Your task to perform on an android device: Go to display settings Image 0: 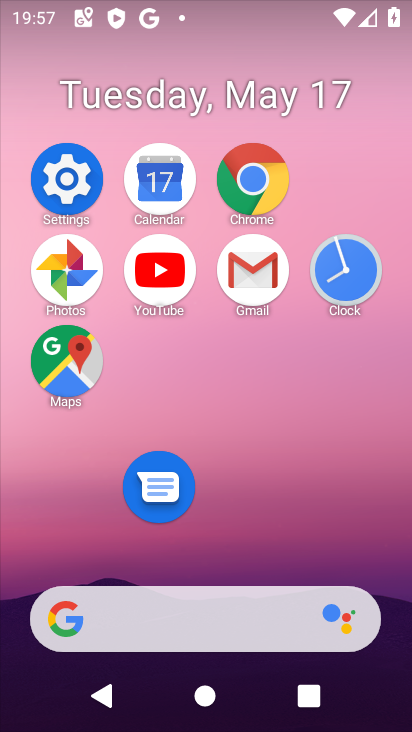
Step 0: click (69, 175)
Your task to perform on an android device: Go to display settings Image 1: 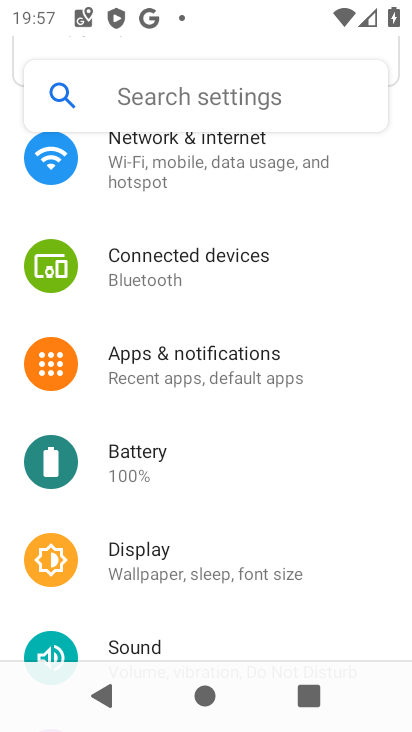
Step 1: drag from (319, 251) to (313, 154)
Your task to perform on an android device: Go to display settings Image 2: 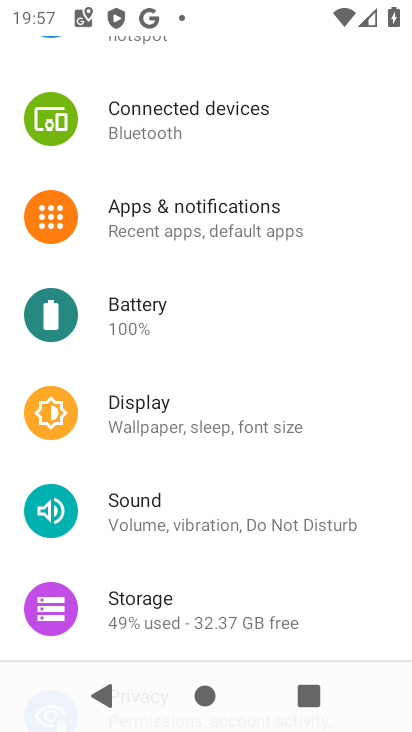
Step 2: click (236, 412)
Your task to perform on an android device: Go to display settings Image 3: 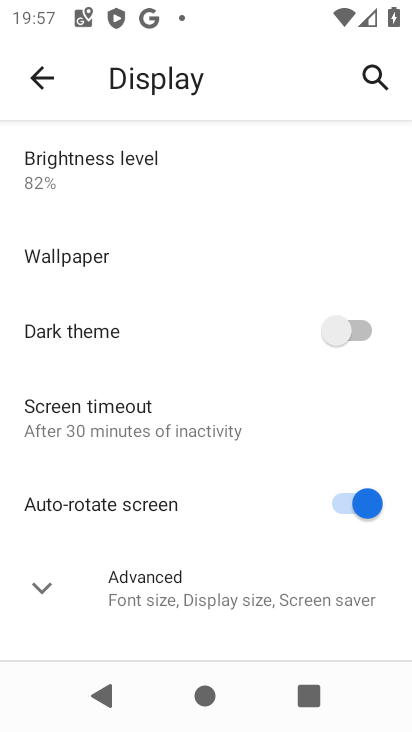
Step 3: task complete